Your task to perform on an android device: find photos in the google photos app Image 0: 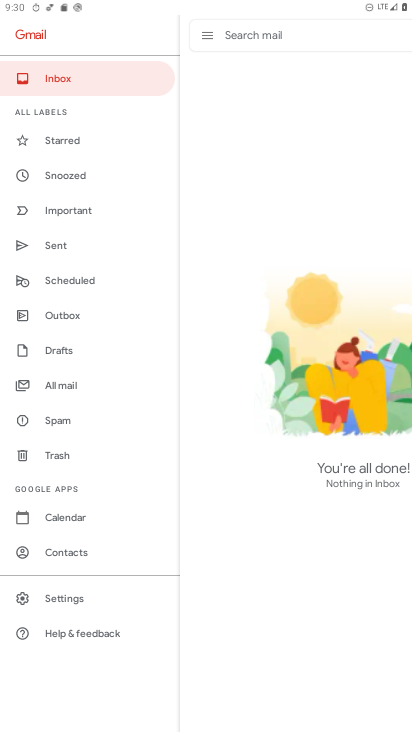
Step 0: press home button
Your task to perform on an android device: find photos in the google photos app Image 1: 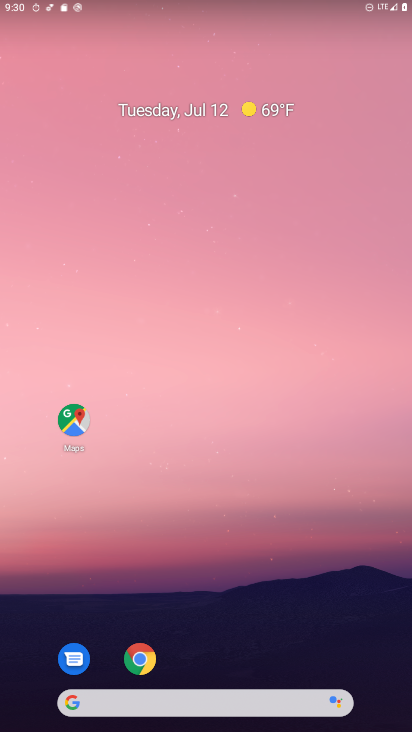
Step 1: drag from (243, 728) to (214, 192)
Your task to perform on an android device: find photos in the google photos app Image 2: 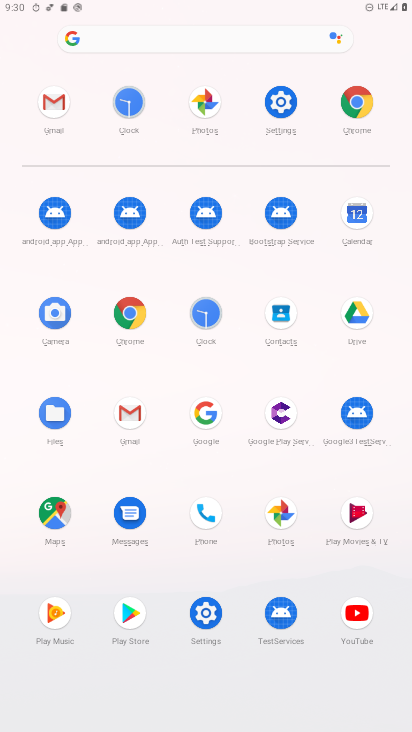
Step 2: click (279, 512)
Your task to perform on an android device: find photos in the google photos app Image 3: 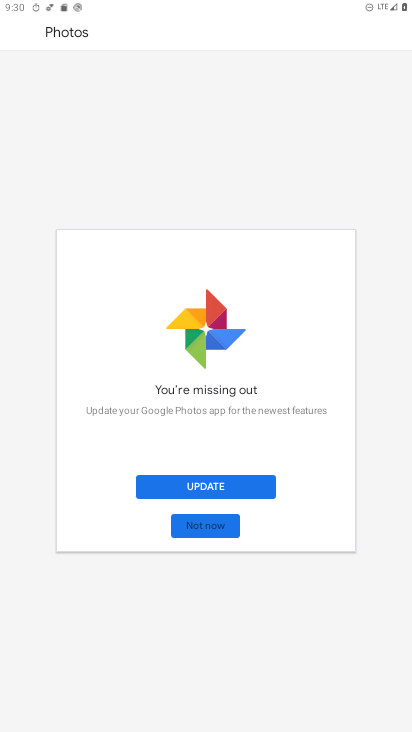
Step 3: task complete